Your task to perform on an android device: add a label to a message in the gmail app Image 0: 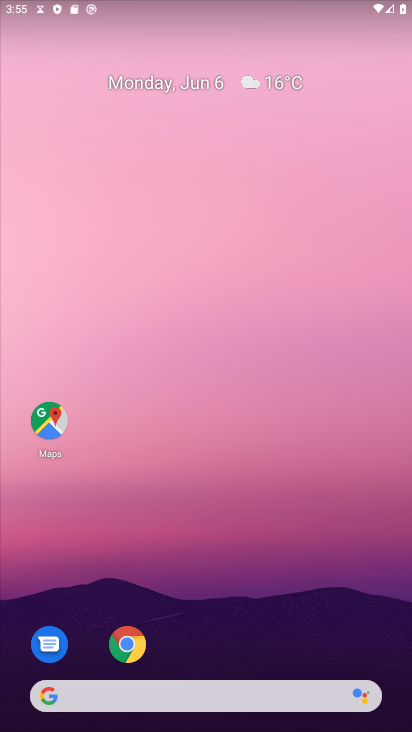
Step 0: drag from (121, 723) to (68, 215)
Your task to perform on an android device: add a label to a message in the gmail app Image 1: 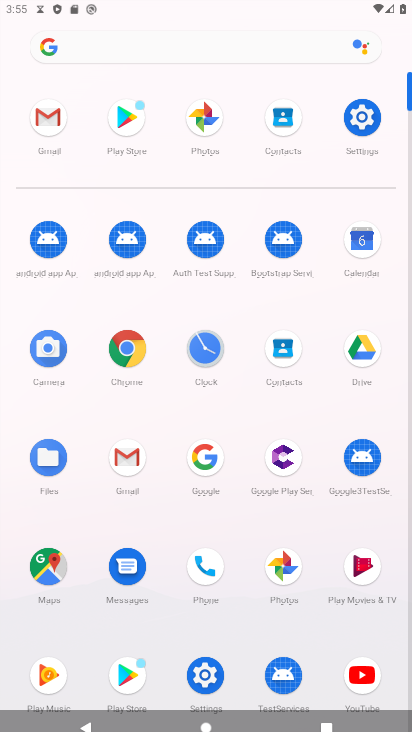
Step 1: click (130, 463)
Your task to perform on an android device: add a label to a message in the gmail app Image 2: 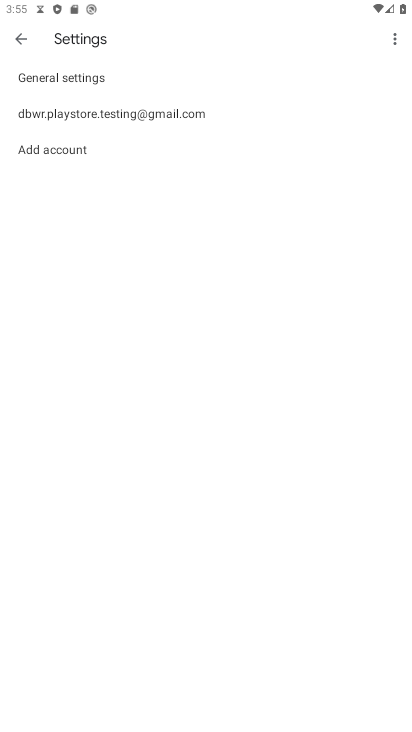
Step 2: click (26, 46)
Your task to perform on an android device: add a label to a message in the gmail app Image 3: 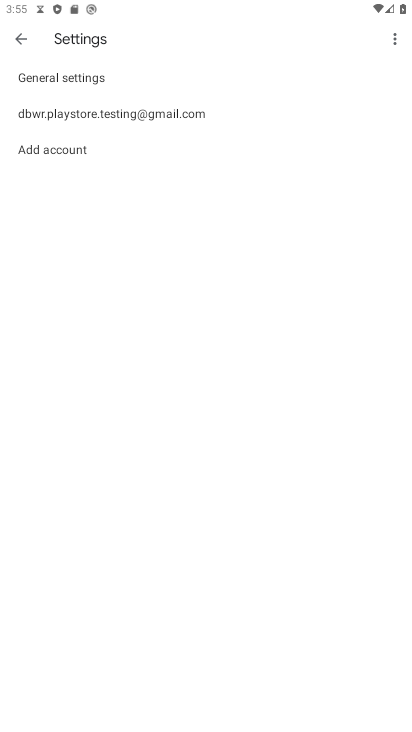
Step 3: click (20, 39)
Your task to perform on an android device: add a label to a message in the gmail app Image 4: 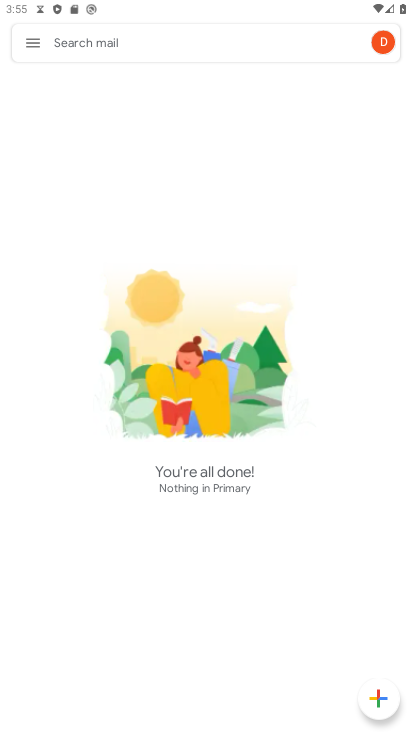
Step 4: click (27, 35)
Your task to perform on an android device: add a label to a message in the gmail app Image 5: 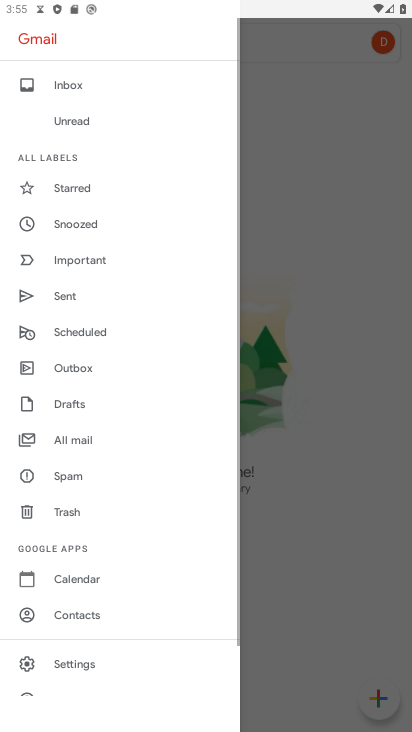
Step 5: click (80, 84)
Your task to perform on an android device: add a label to a message in the gmail app Image 6: 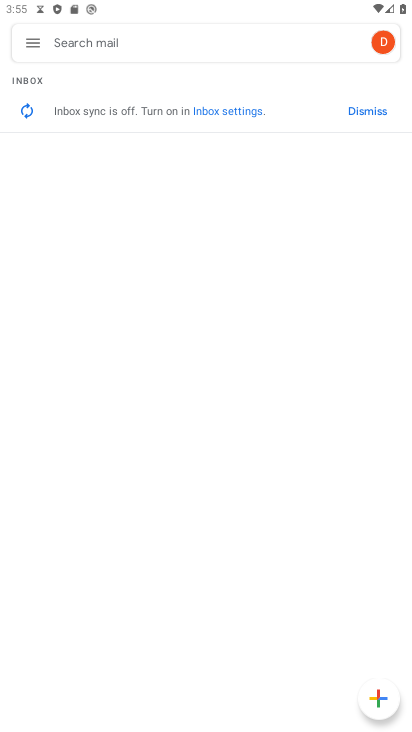
Step 6: click (35, 38)
Your task to perform on an android device: add a label to a message in the gmail app Image 7: 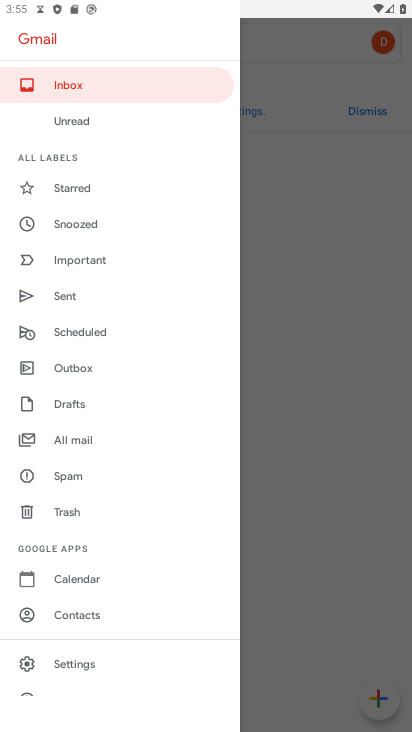
Step 7: click (57, 438)
Your task to perform on an android device: add a label to a message in the gmail app Image 8: 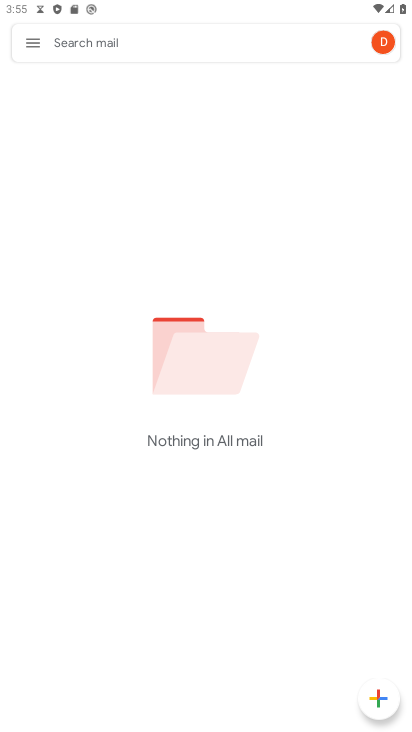
Step 8: task complete